Your task to perform on an android device: turn on the 12-hour format for clock Image 0: 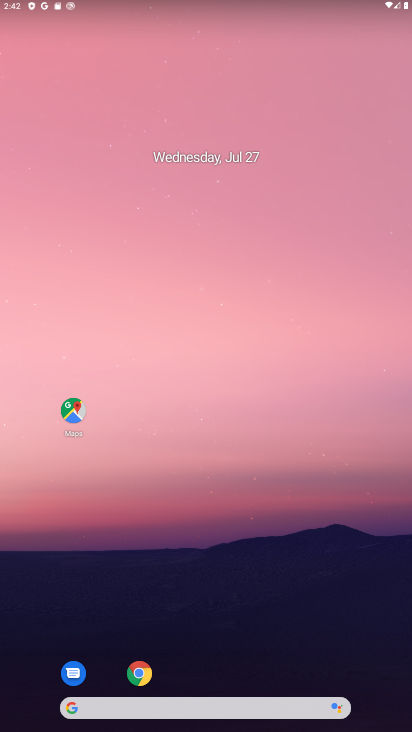
Step 0: drag from (160, 723) to (207, 339)
Your task to perform on an android device: turn on the 12-hour format for clock Image 1: 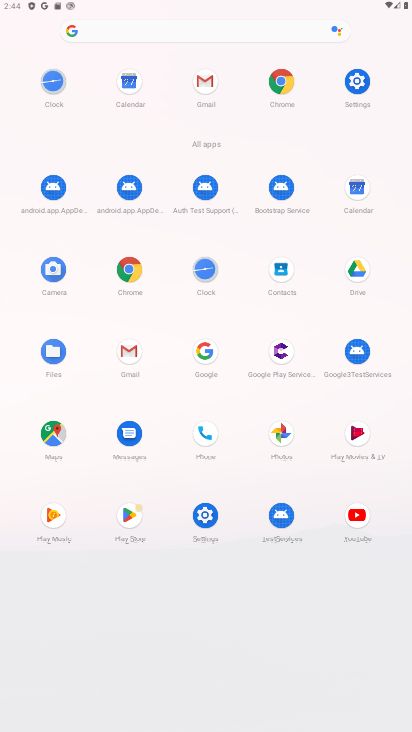
Step 1: click (213, 269)
Your task to perform on an android device: turn on the 12-hour format for clock Image 2: 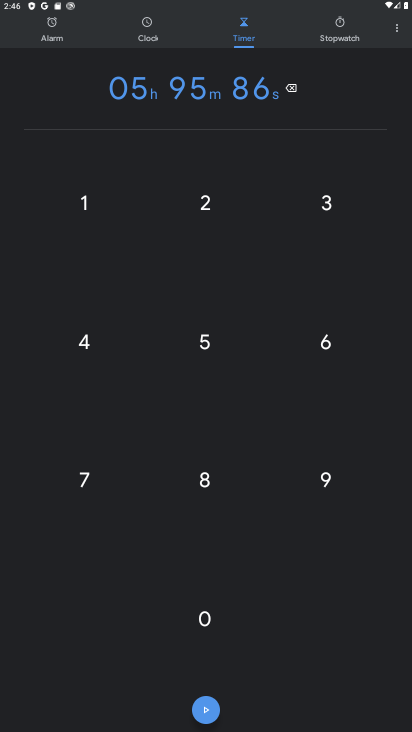
Step 2: click (399, 25)
Your task to perform on an android device: turn on the 12-hour format for clock Image 3: 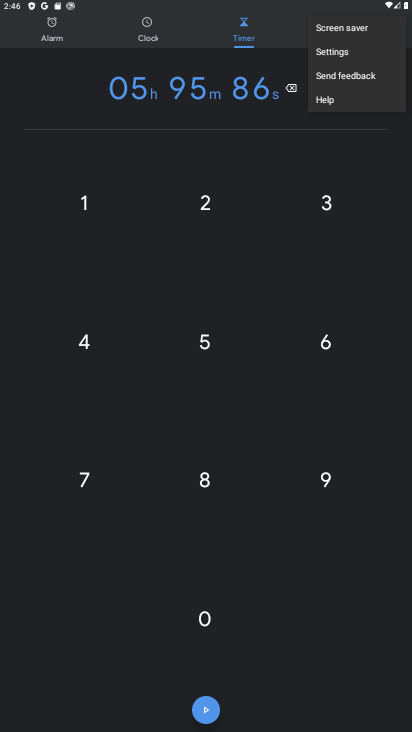
Step 3: click (330, 58)
Your task to perform on an android device: turn on the 12-hour format for clock Image 4: 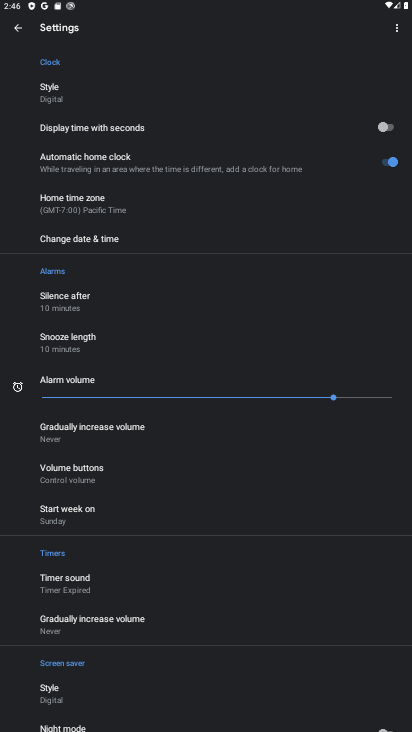
Step 4: click (175, 237)
Your task to perform on an android device: turn on the 12-hour format for clock Image 5: 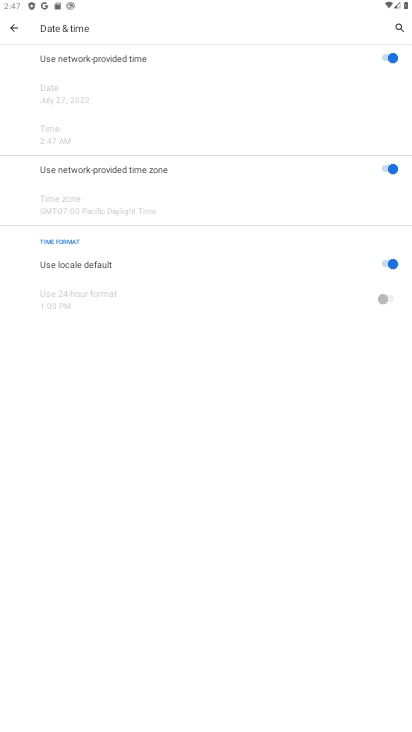
Step 5: task complete